Your task to perform on an android device: Is it going to rain today? Image 0: 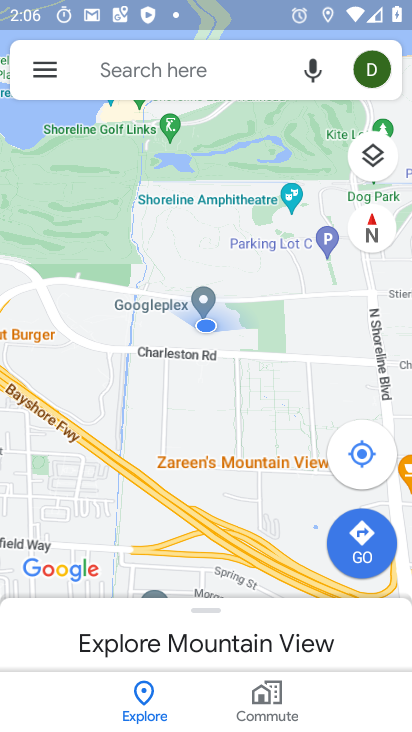
Step 0: press home button
Your task to perform on an android device: Is it going to rain today? Image 1: 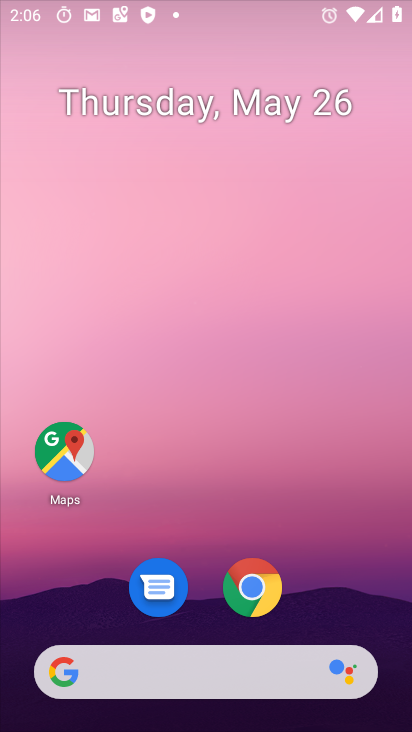
Step 1: press home button
Your task to perform on an android device: Is it going to rain today? Image 2: 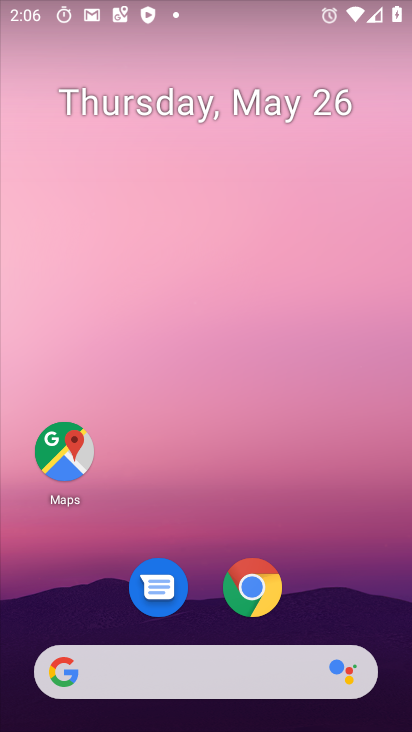
Step 2: drag from (213, 722) to (211, 208)
Your task to perform on an android device: Is it going to rain today? Image 3: 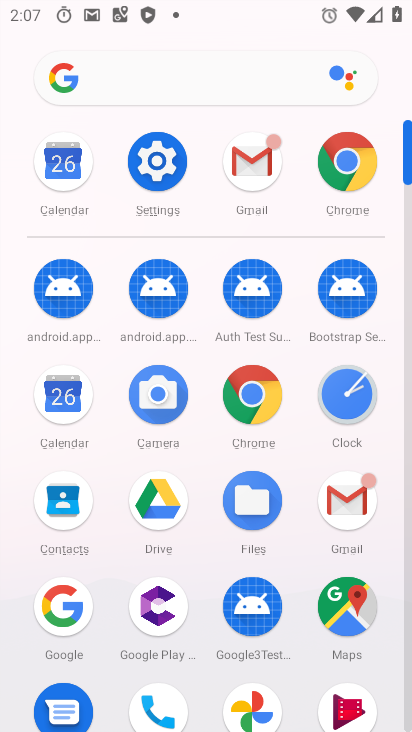
Step 3: click (161, 84)
Your task to perform on an android device: Is it going to rain today? Image 4: 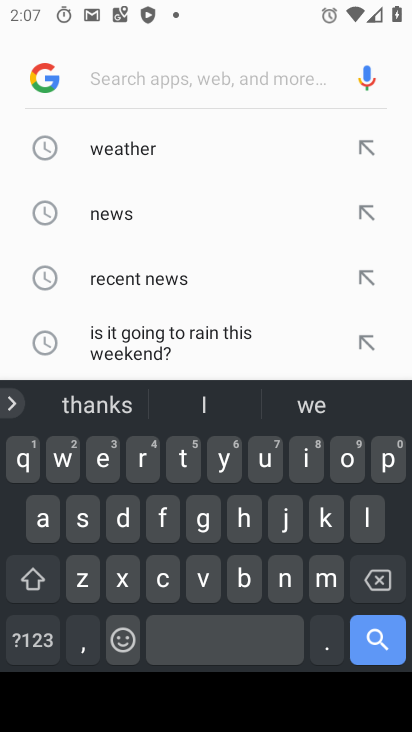
Step 4: click (132, 455)
Your task to perform on an android device: Is it going to rain today? Image 5: 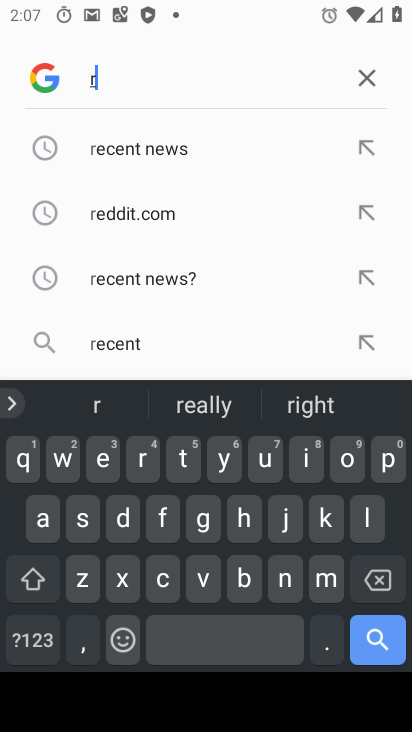
Step 5: click (38, 518)
Your task to perform on an android device: Is it going to rain today? Image 6: 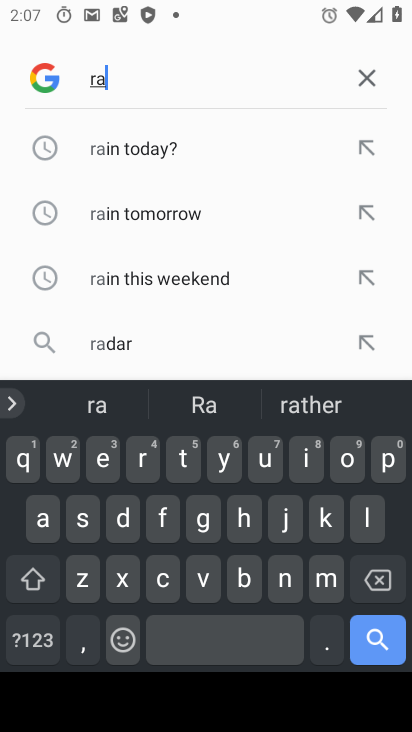
Step 6: click (186, 156)
Your task to perform on an android device: Is it going to rain today? Image 7: 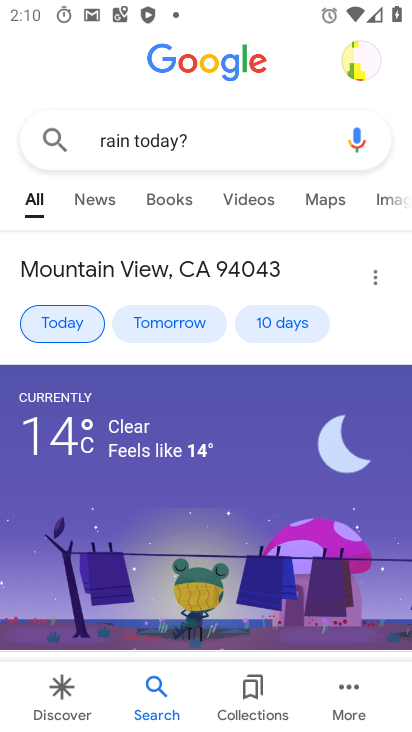
Step 7: task complete